Your task to perform on an android device: Go to location settings Image 0: 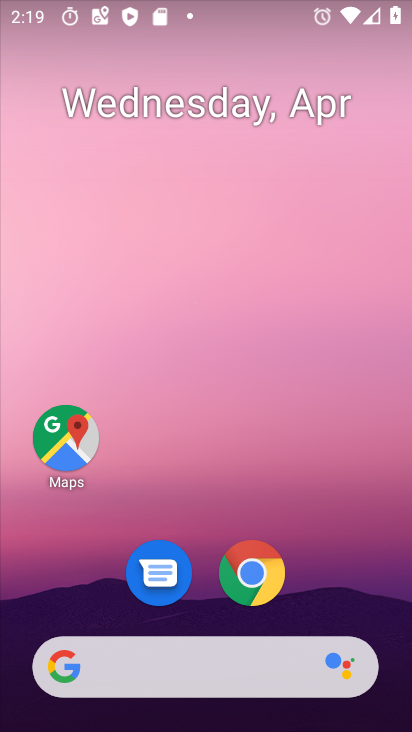
Step 0: drag from (356, 575) to (348, 179)
Your task to perform on an android device: Go to location settings Image 1: 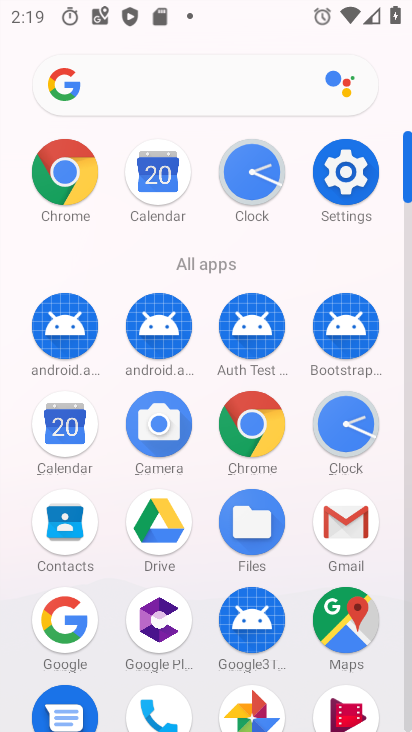
Step 1: click (318, 178)
Your task to perform on an android device: Go to location settings Image 2: 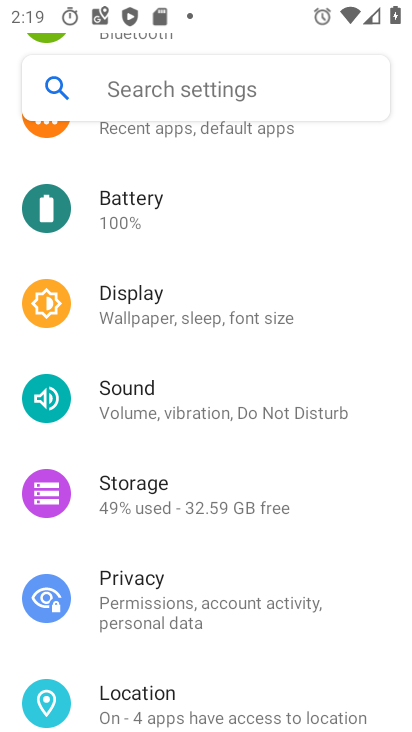
Step 2: drag from (364, 303) to (361, 458)
Your task to perform on an android device: Go to location settings Image 3: 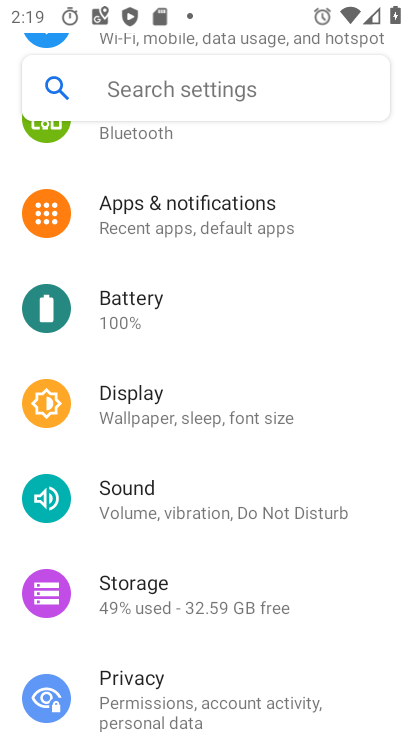
Step 3: drag from (371, 246) to (357, 425)
Your task to perform on an android device: Go to location settings Image 4: 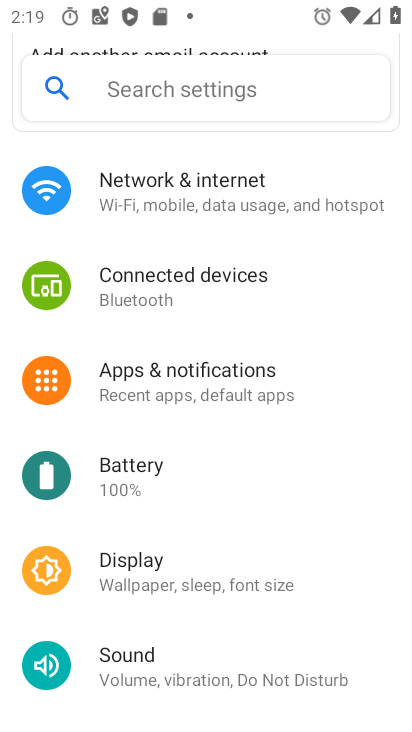
Step 4: drag from (358, 244) to (354, 433)
Your task to perform on an android device: Go to location settings Image 5: 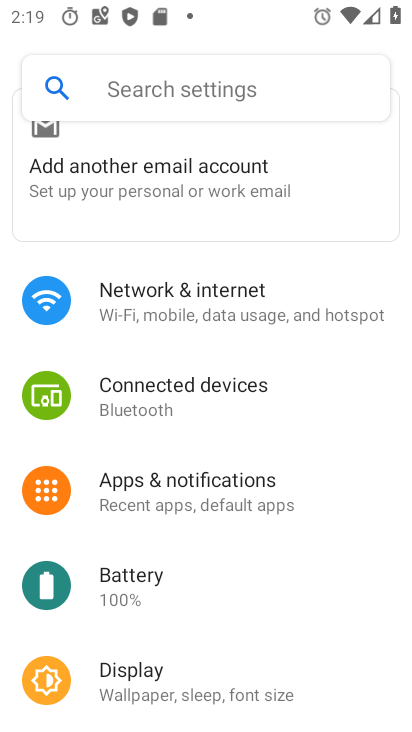
Step 5: drag from (353, 484) to (362, 290)
Your task to perform on an android device: Go to location settings Image 6: 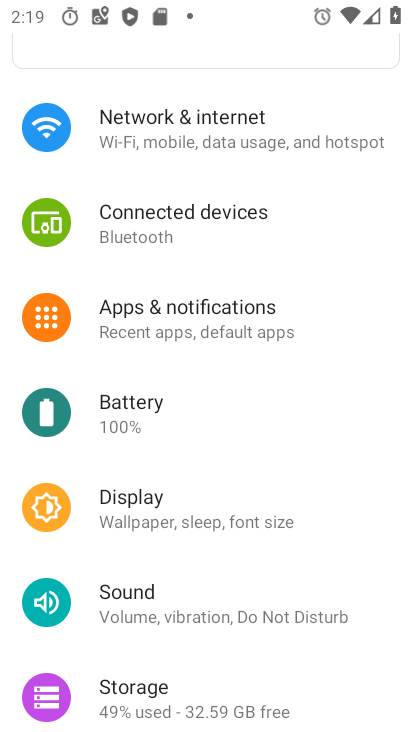
Step 6: drag from (366, 511) to (370, 351)
Your task to perform on an android device: Go to location settings Image 7: 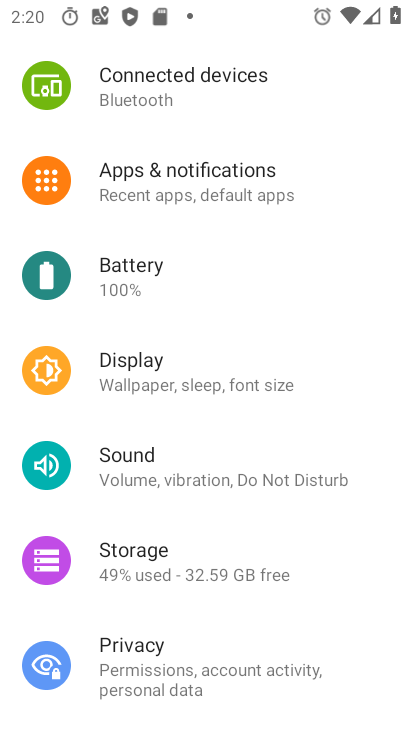
Step 7: drag from (371, 493) to (370, 333)
Your task to perform on an android device: Go to location settings Image 8: 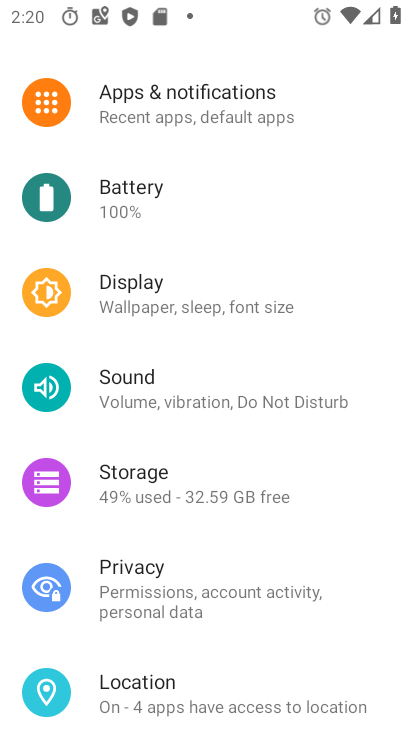
Step 8: drag from (369, 553) to (371, 377)
Your task to perform on an android device: Go to location settings Image 9: 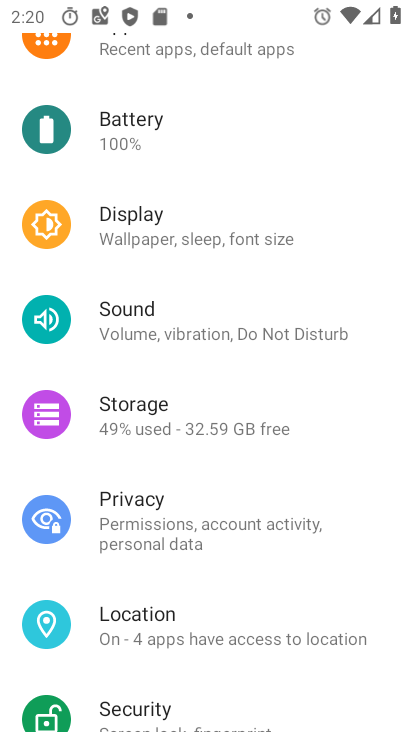
Step 9: drag from (383, 575) to (381, 460)
Your task to perform on an android device: Go to location settings Image 10: 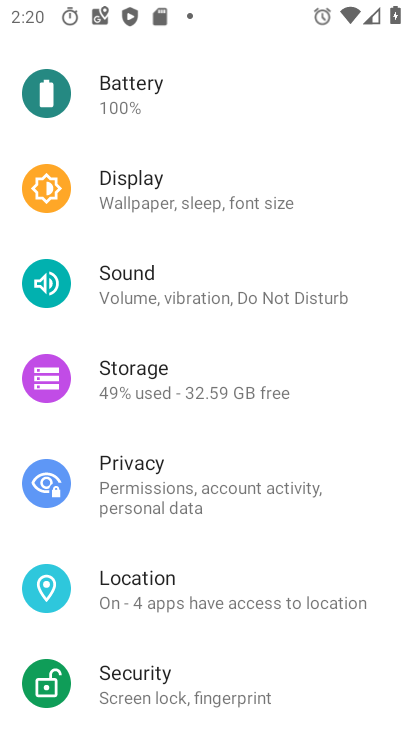
Step 10: click (221, 585)
Your task to perform on an android device: Go to location settings Image 11: 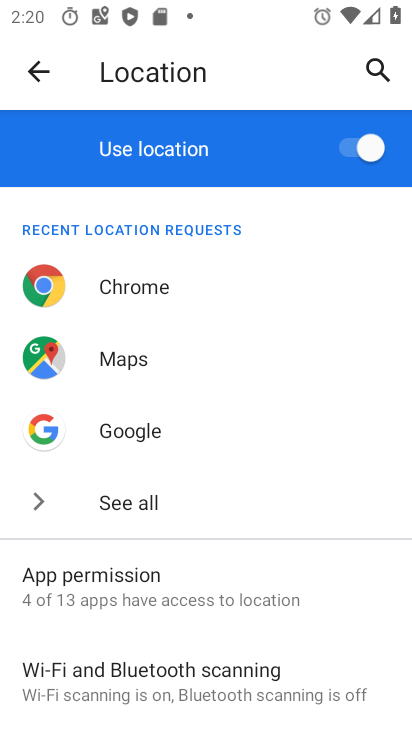
Step 11: task complete